Your task to perform on an android device: Check the news Image 0: 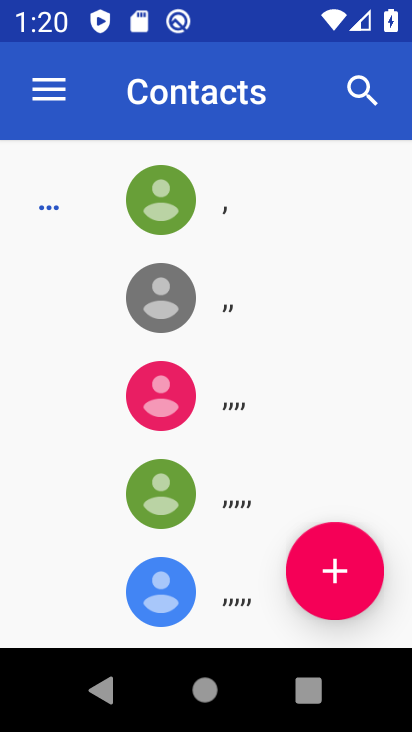
Step 0: press home button
Your task to perform on an android device: Check the news Image 1: 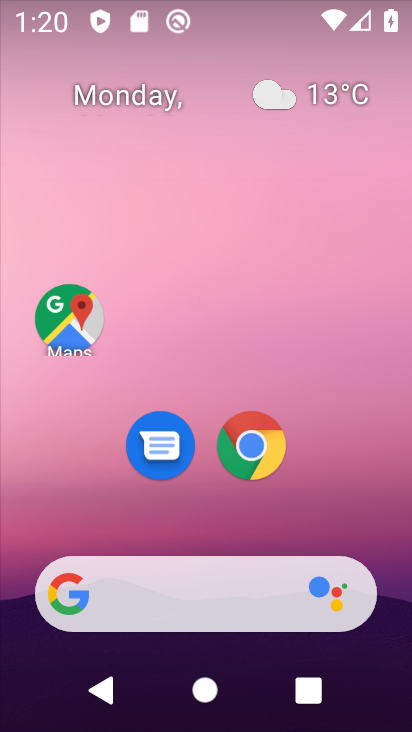
Step 1: click (209, 596)
Your task to perform on an android device: Check the news Image 2: 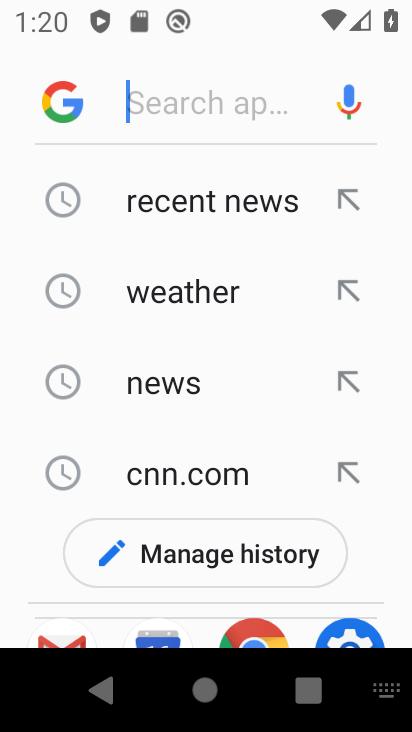
Step 2: click (132, 372)
Your task to perform on an android device: Check the news Image 3: 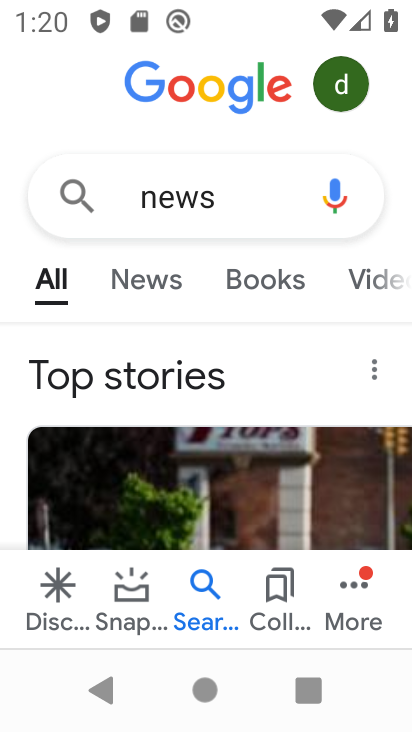
Step 3: task complete